Your task to perform on an android device: turn pop-ups off in chrome Image 0: 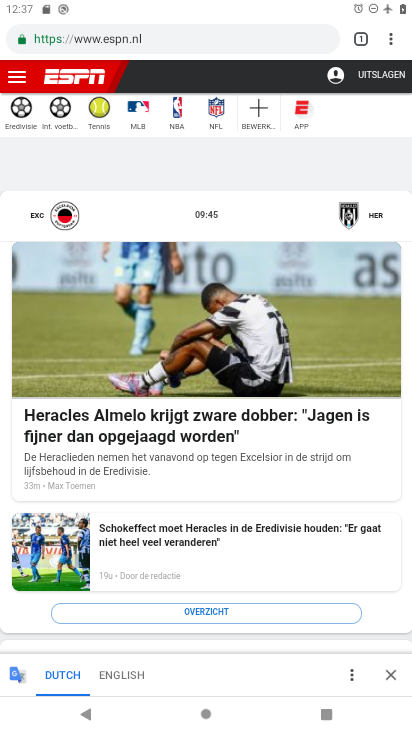
Step 0: click (379, 50)
Your task to perform on an android device: turn pop-ups off in chrome Image 1: 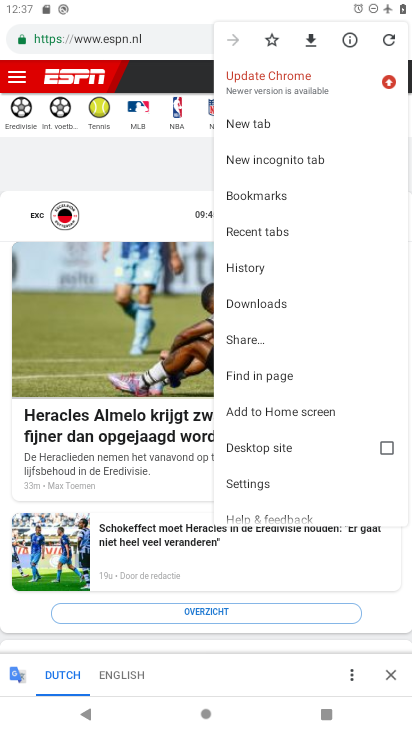
Step 1: click (264, 481)
Your task to perform on an android device: turn pop-ups off in chrome Image 2: 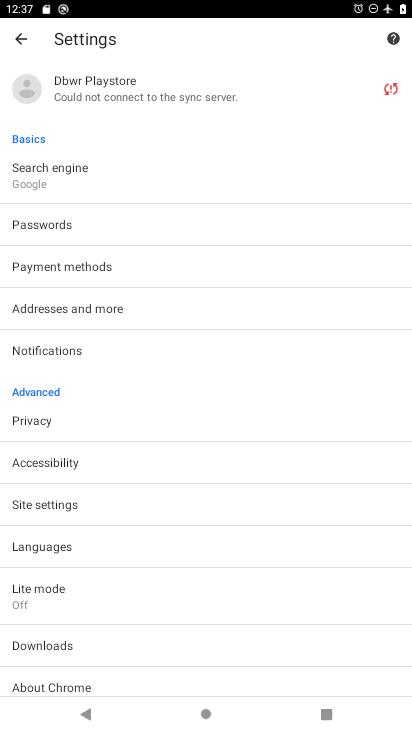
Step 2: click (85, 504)
Your task to perform on an android device: turn pop-ups off in chrome Image 3: 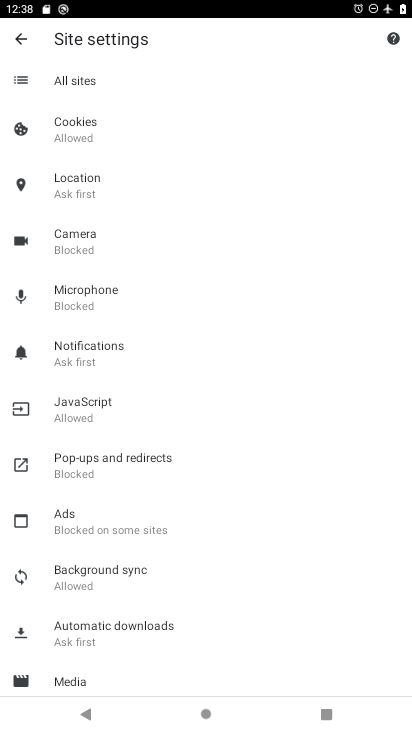
Step 3: click (79, 465)
Your task to perform on an android device: turn pop-ups off in chrome Image 4: 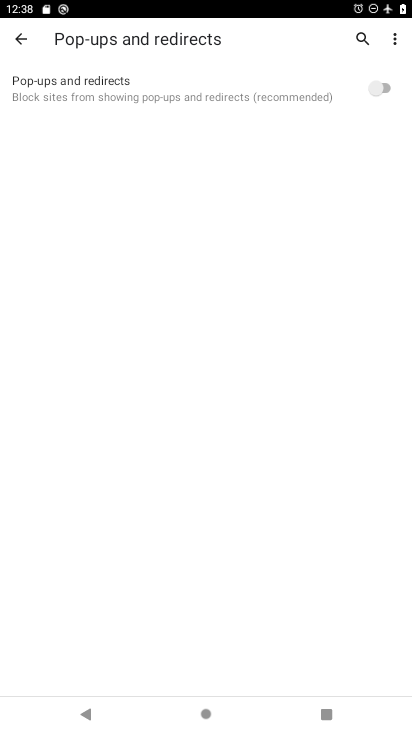
Step 4: click (381, 91)
Your task to perform on an android device: turn pop-ups off in chrome Image 5: 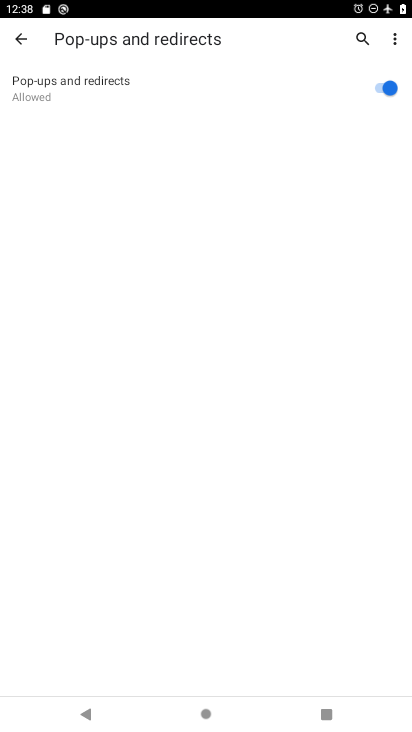
Step 5: click (382, 91)
Your task to perform on an android device: turn pop-ups off in chrome Image 6: 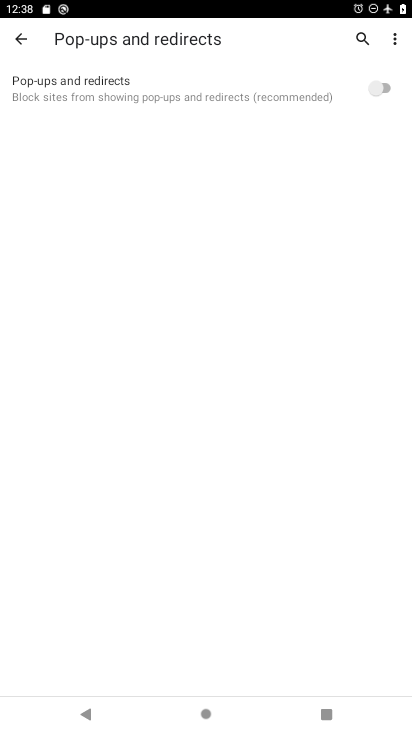
Step 6: task complete